Your task to perform on an android device: change notification settings in the gmail app Image 0: 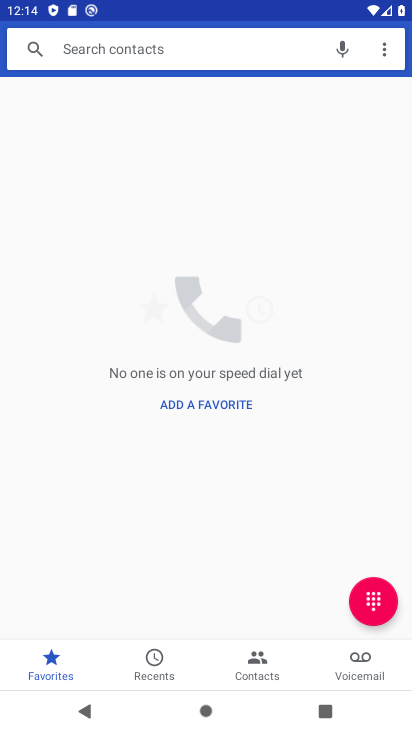
Step 0: press back button
Your task to perform on an android device: change notification settings in the gmail app Image 1: 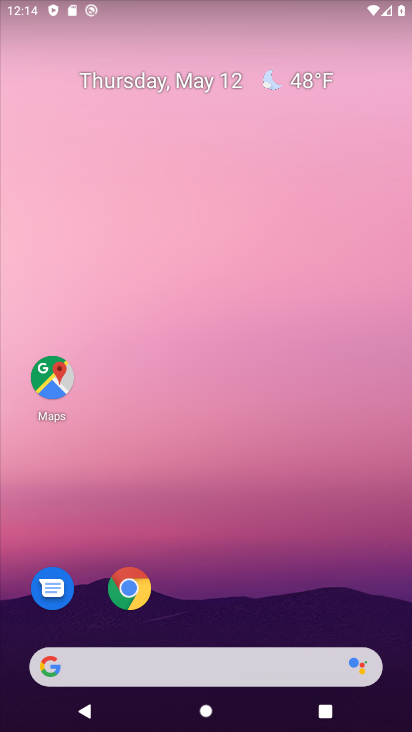
Step 1: drag from (266, 608) to (92, 169)
Your task to perform on an android device: change notification settings in the gmail app Image 2: 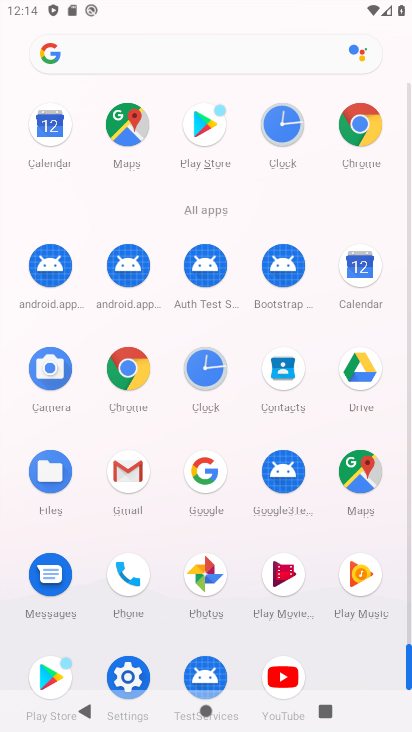
Step 2: click (130, 478)
Your task to perform on an android device: change notification settings in the gmail app Image 3: 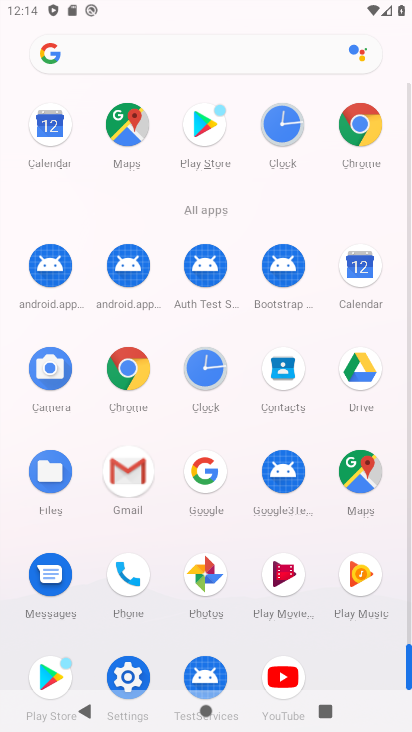
Step 3: click (138, 471)
Your task to perform on an android device: change notification settings in the gmail app Image 4: 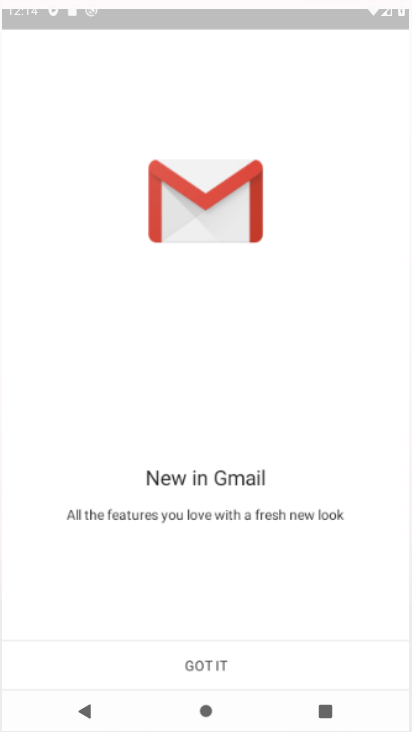
Step 4: click (137, 475)
Your task to perform on an android device: change notification settings in the gmail app Image 5: 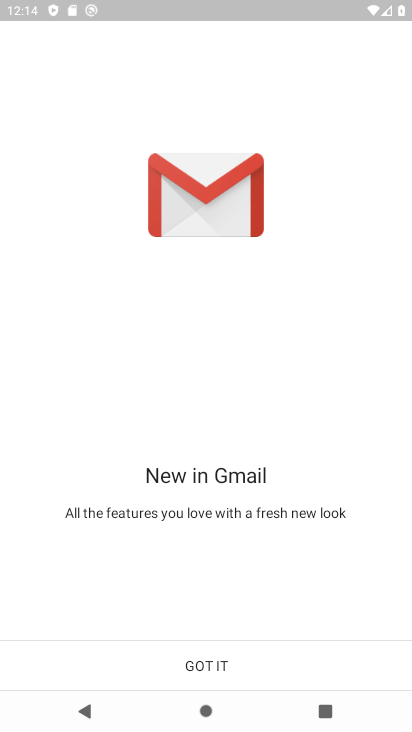
Step 5: click (206, 663)
Your task to perform on an android device: change notification settings in the gmail app Image 6: 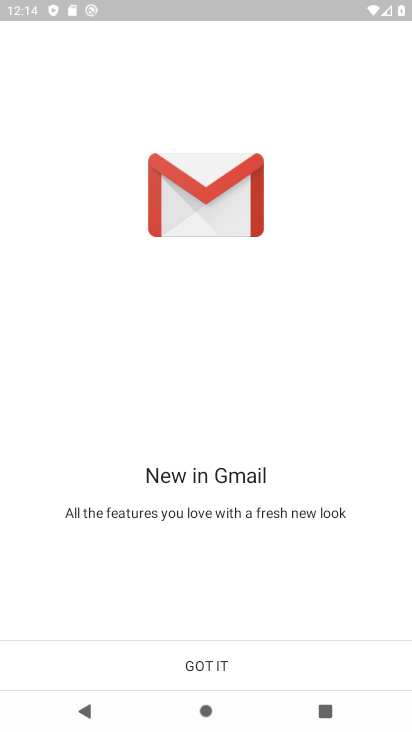
Step 6: click (208, 658)
Your task to perform on an android device: change notification settings in the gmail app Image 7: 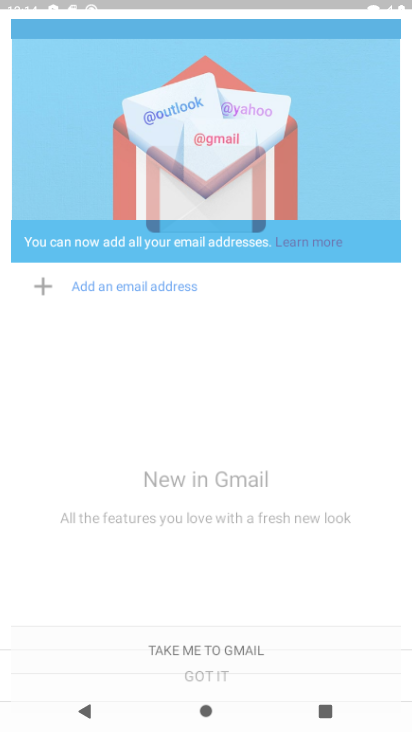
Step 7: click (209, 657)
Your task to perform on an android device: change notification settings in the gmail app Image 8: 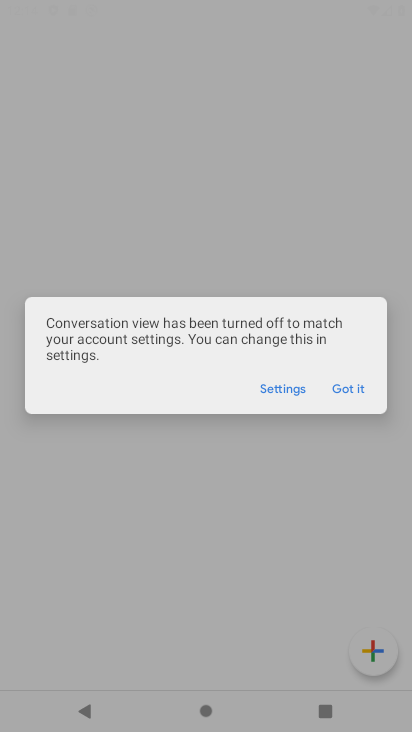
Step 8: click (212, 670)
Your task to perform on an android device: change notification settings in the gmail app Image 9: 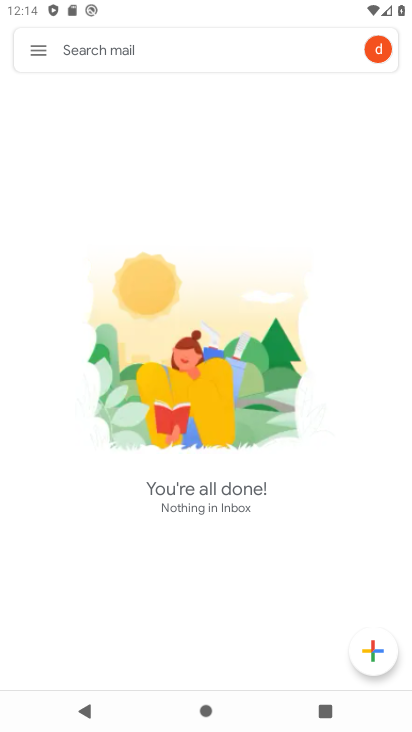
Step 9: click (40, 45)
Your task to perform on an android device: change notification settings in the gmail app Image 10: 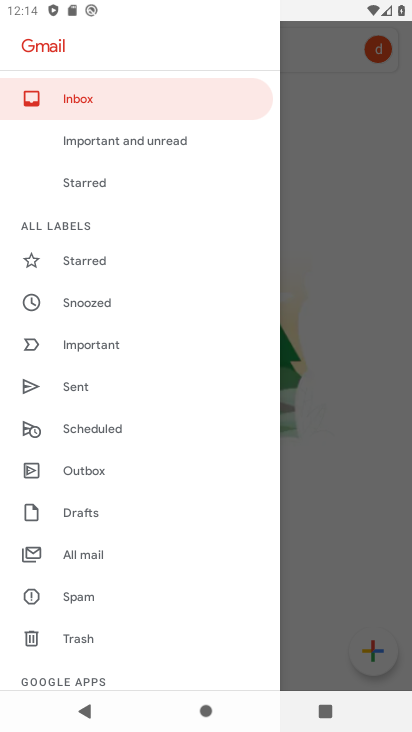
Step 10: click (85, 549)
Your task to perform on an android device: change notification settings in the gmail app Image 11: 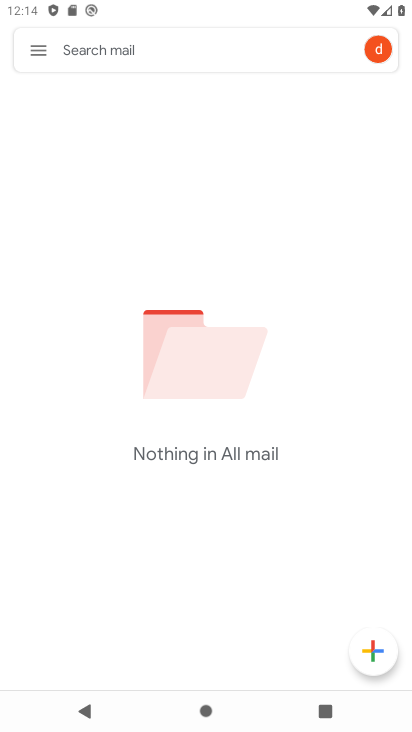
Step 11: click (25, 47)
Your task to perform on an android device: change notification settings in the gmail app Image 12: 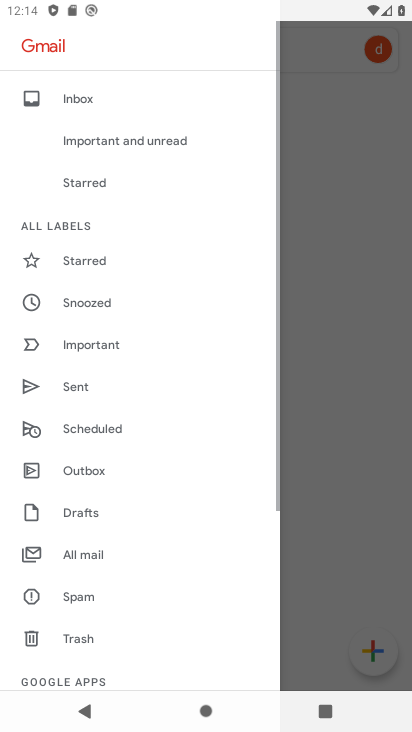
Step 12: drag from (140, 571) to (85, 117)
Your task to perform on an android device: change notification settings in the gmail app Image 13: 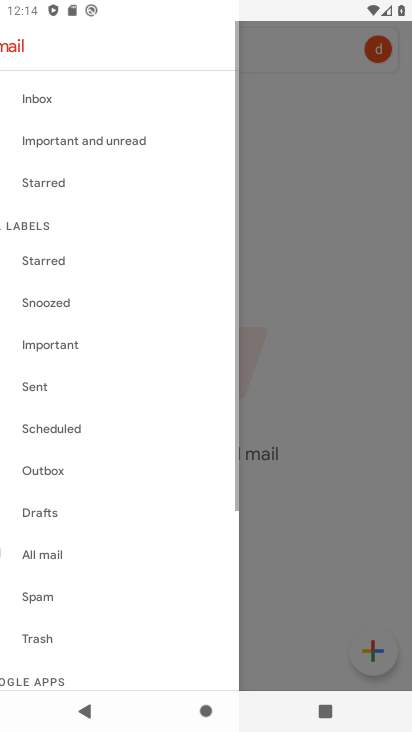
Step 13: drag from (62, 296) to (52, 112)
Your task to perform on an android device: change notification settings in the gmail app Image 14: 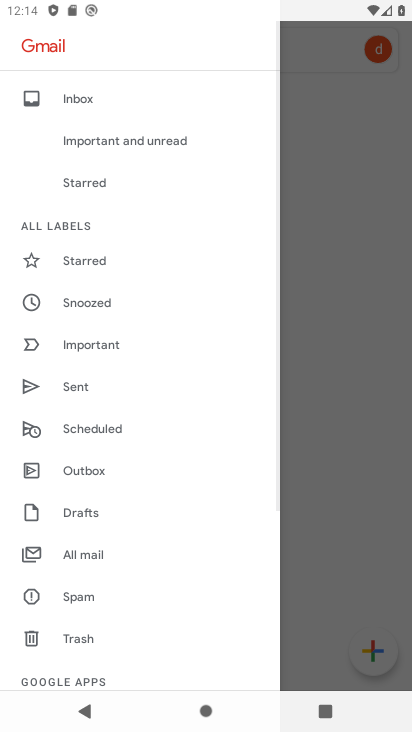
Step 14: drag from (95, 540) to (127, 220)
Your task to perform on an android device: change notification settings in the gmail app Image 15: 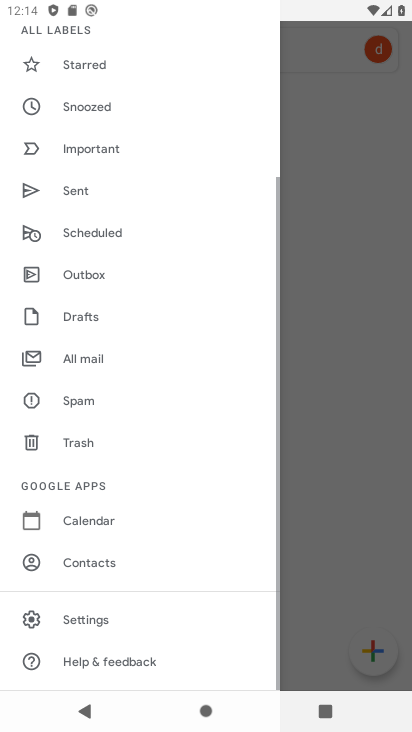
Step 15: drag from (136, 606) to (141, 199)
Your task to perform on an android device: change notification settings in the gmail app Image 16: 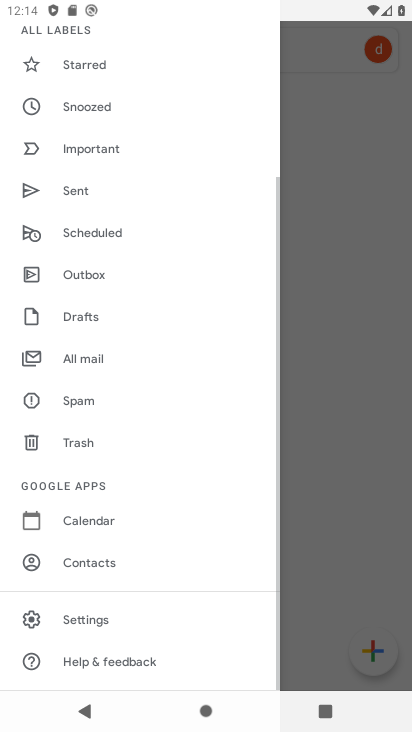
Step 16: click (92, 615)
Your task to perform on an android device: change notification settings in the gmail app Image 17: 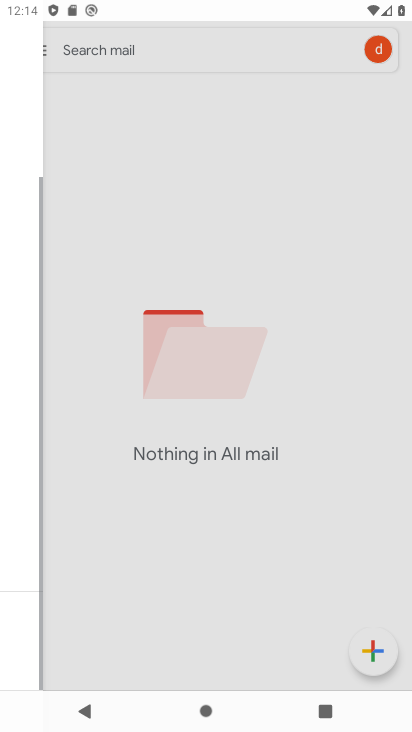
Step 17: click (92, 615)
Your task to perform on an android device: change notification settings in the gmail app Image 18: 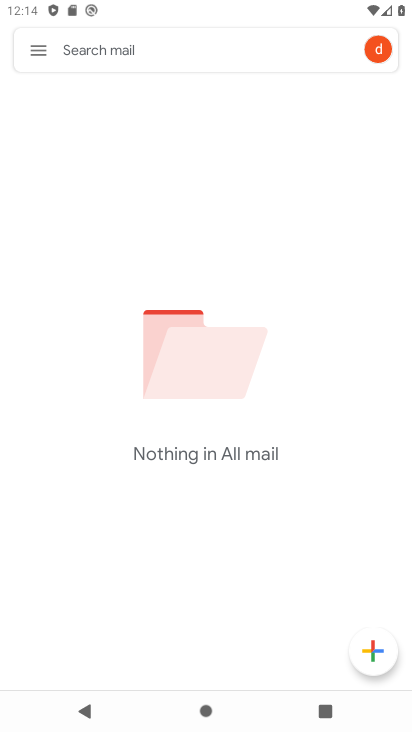
Step 18: click (92, 615)
Your task to perform on an android device: change notification settings in the gmail app Image 19: 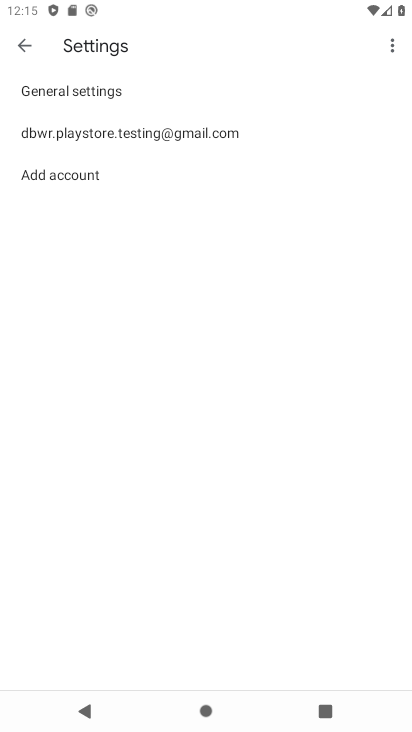
Step 19: click (124, 123)
Your task to perform on an android device: change notification settings in the gmail app Image 20: 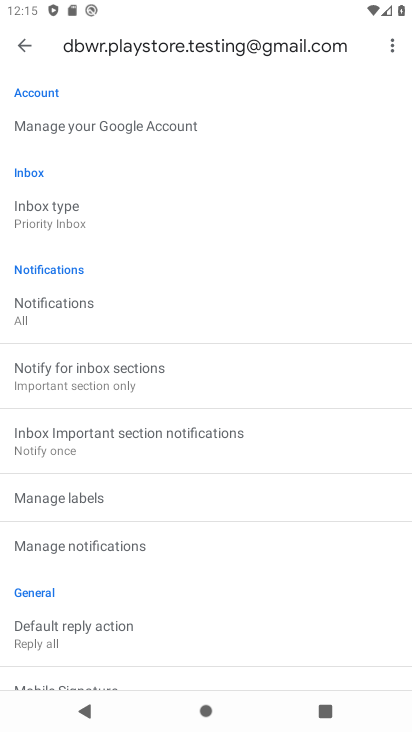
Step 20: click (52, 298)
Your task to perform on an android device: change notification settings in the gmail app Image 21: 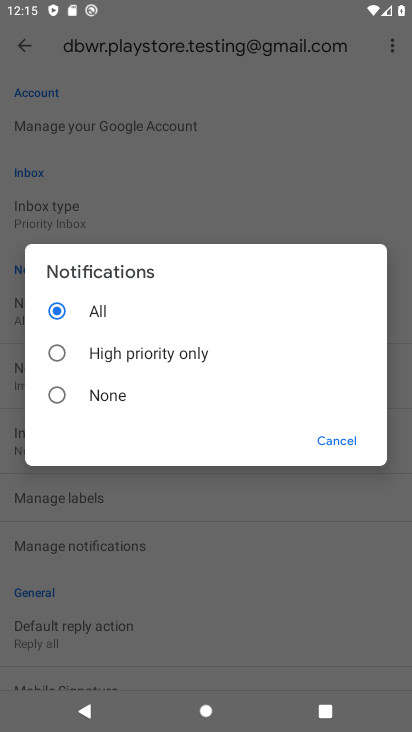
Step 21: click (60, 344)
Your task to perform on an android device: change notification settings in the gmail app Image 22: 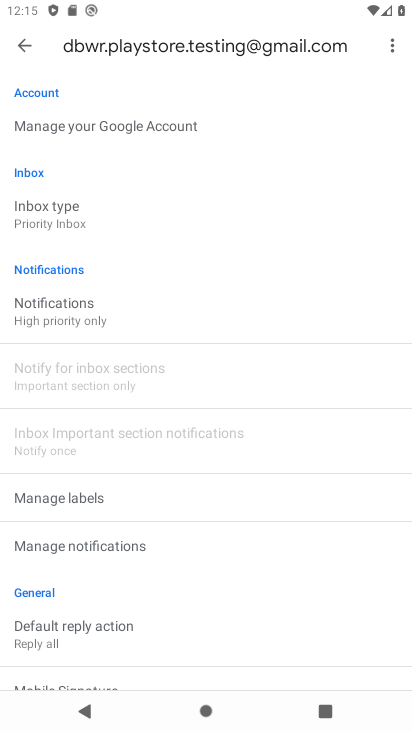
Step 22: click (62, 292)
Your task to perform on an android device: change notification settings in the gmail app Image 23: 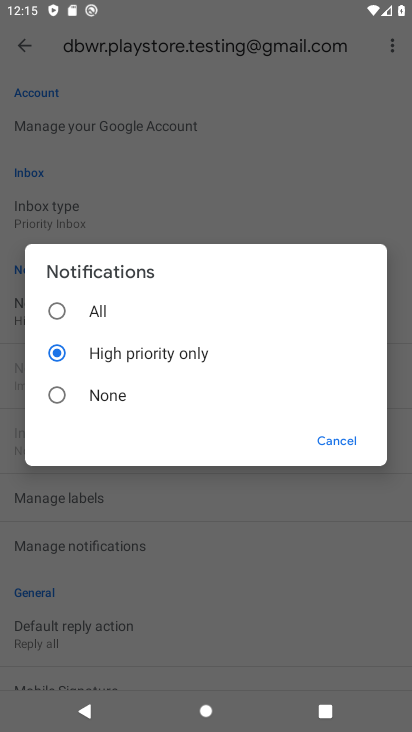
Step 23: click (336, 440)
Your task to perform on an android device: change notification settings in the gmail app Image 24: 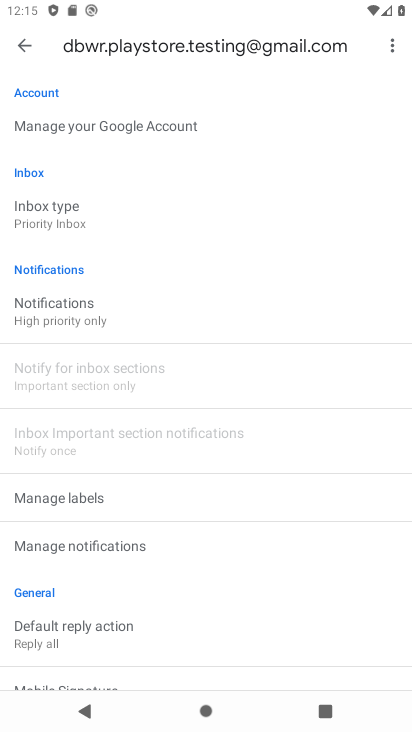
Step 24: task complete